Your task to perform on an android device: Do I have any events tomorrow? Image 0: 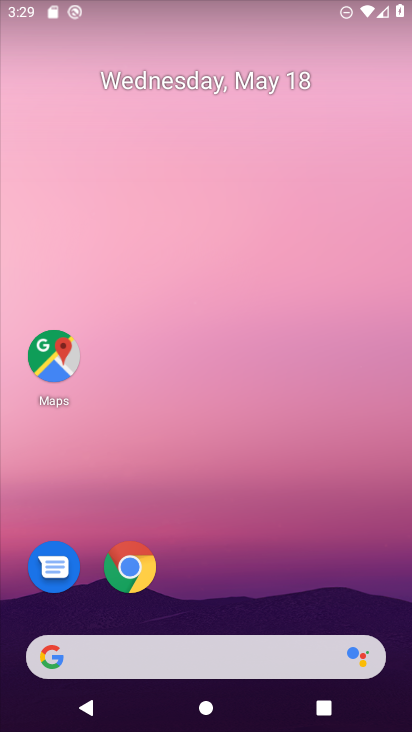
Step 0: drag from (212, 588) to (227, 91)
Your task to perform on an android device: Do I have any events tomorrow? Image 1: 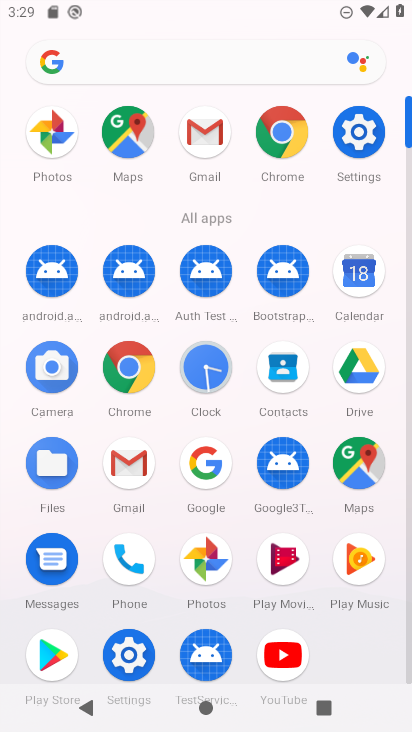
Step 1: click (358, 273)
Your task to perform on an android device: Do I have any events tomorrow? Image 2: 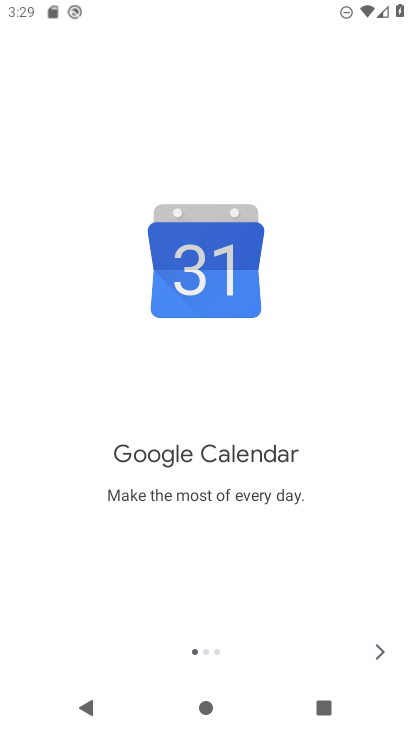
Step 2: click (376, 652)
Your task to perform on an android device: Do I have any events tomorrow? Image 3: 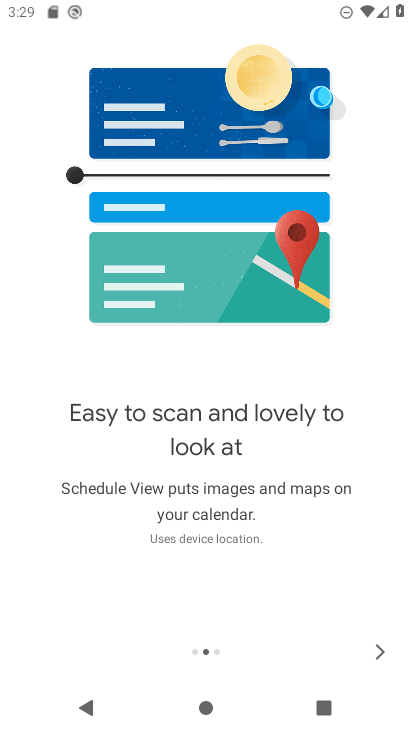
Step 3: click (379, 652)
Your task to perform on an android device: Do I have any events tomorrow? Image 4: 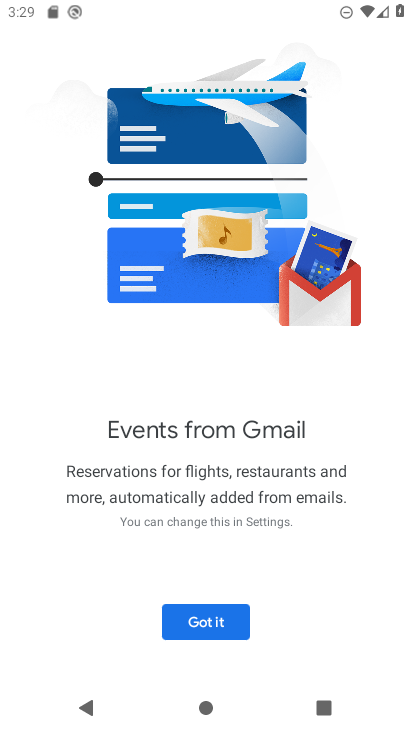
Step 4: click (222, 625)
Your task to perform on an android device: Do I have any events tomorrow? Image 5: 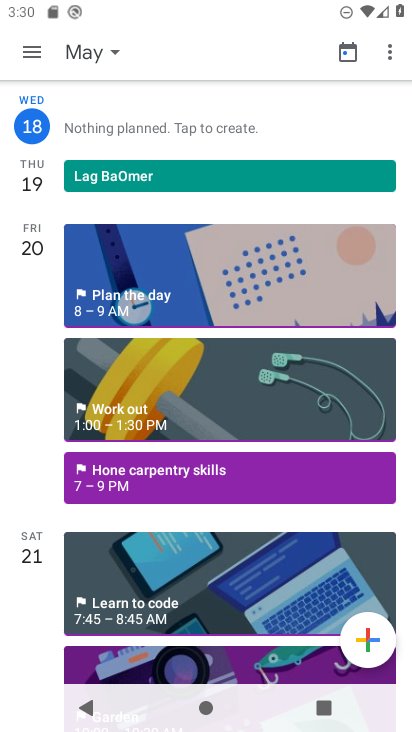
Step 5: click (96, 49)
Your task to perform on an android device: Do I have any events tomorrow? Image 6: 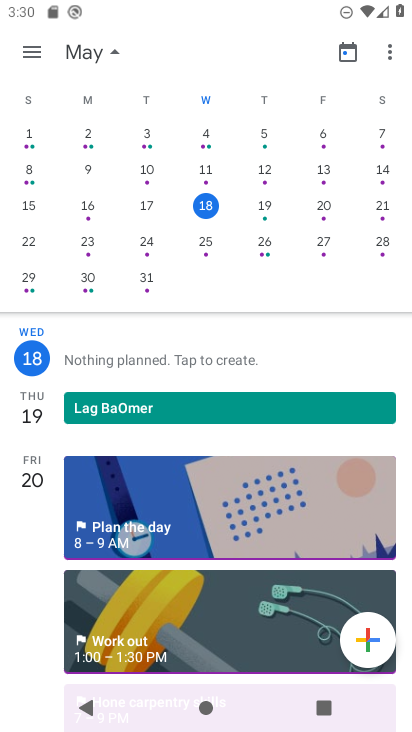
Step 6: click (262, 207)
Your task to perform on an android device: Do I have any events tomorrow? Image 7: 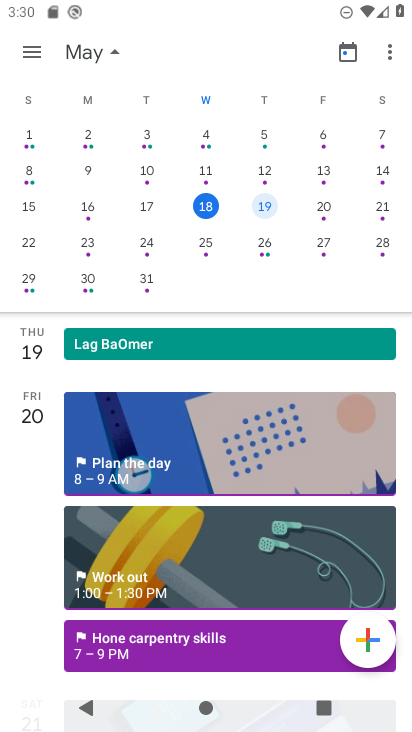
Step 7: task complete